Your task to perform on an android device: Open Google Chrome and click the shortcut for Amazon.com Image 0: 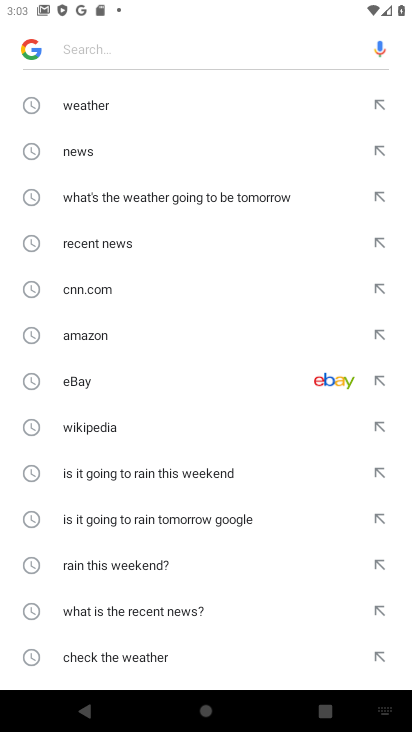
Step 0: press home button
Your task to perform on an android device: Open Google Chrome and click the shortcut for Amazon.com Image 1: 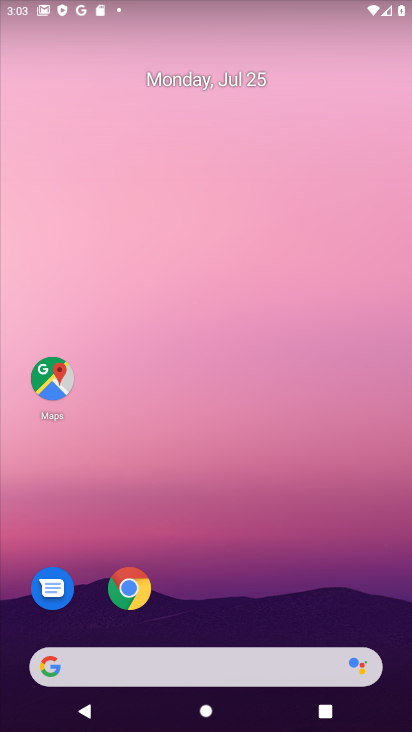
Step 1: click (135, 584)
Your task to perform on an android device: Open Google Chrome and click the shortcut for Amazon.com Image 2: 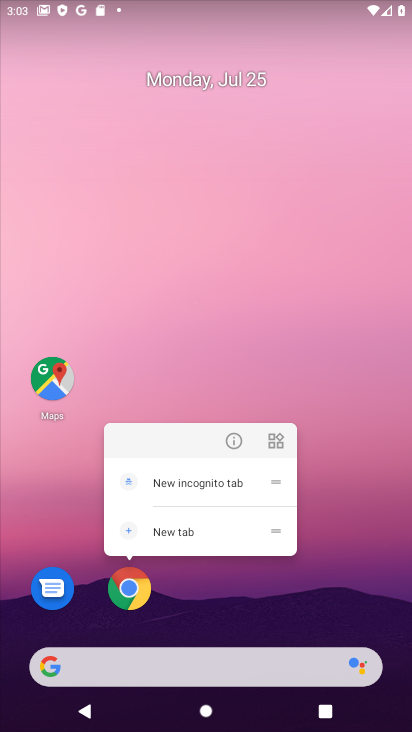
Step 2: click (124, 591)
Your task to perform on an android device: Open Google Chrome and click the shortcut for Amazon.com Image 3: 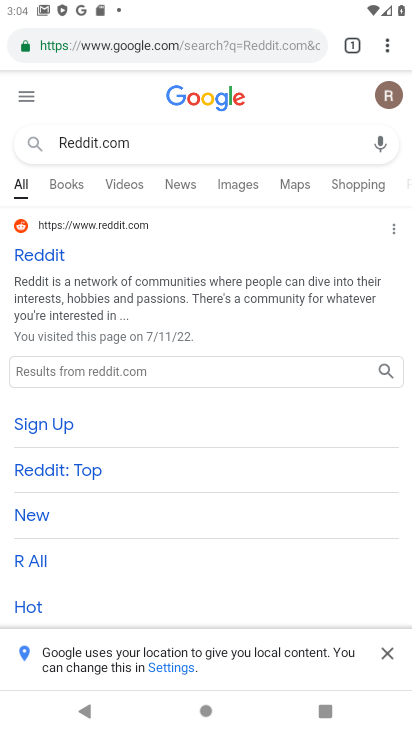
Step 3: click (275, 46)
Your task to perform on an android device: Open Google Chrome and click the shortcut for Amazon.com Image 4: 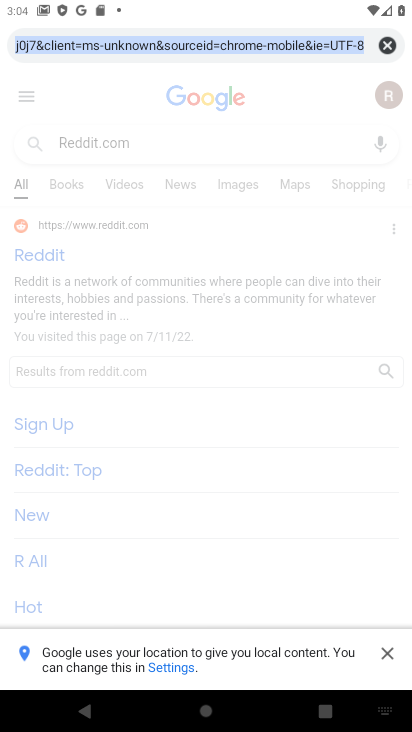
Step 4: click (381, 42)
Your task to perform on an android device: Open Google Chrome and click the shortcut for Amazon.com Image 5: 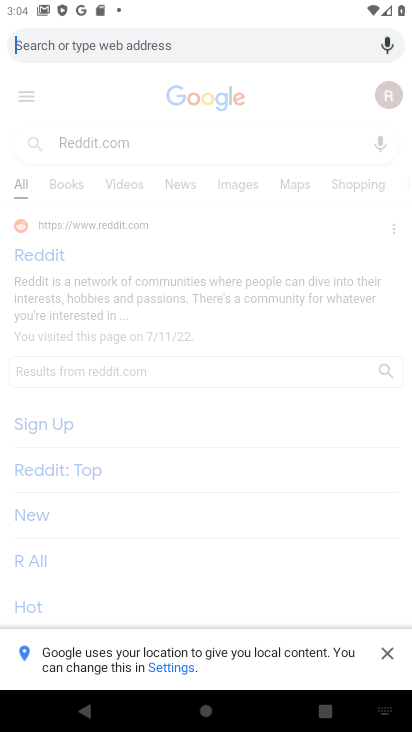
Step 5: type "Amazon.com"
Your task to perform on an android device: Open Google Chrome and click the shortcut for Amazon.com Image 6: 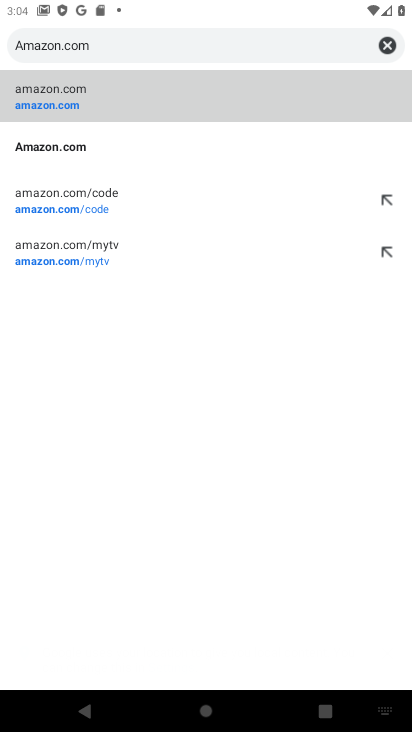
Step 6: click (58, 149)
Your task to perform on an android device: Open Google Chrome and click the shortcut for Amazon.com Image 7: 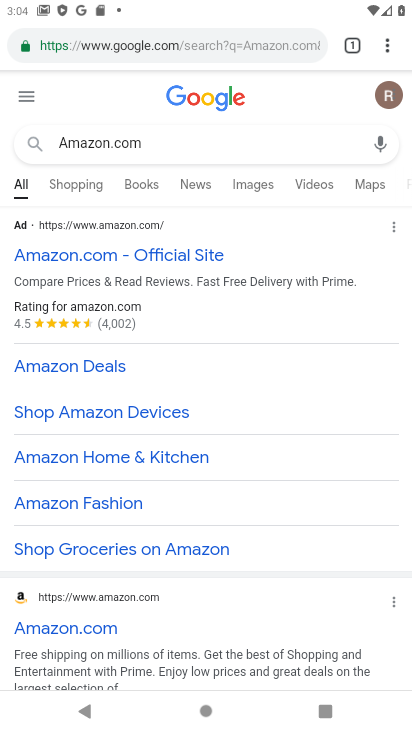
Step 7: task complete